Your task to perform on an android device: Open the stopwatch Image 0: 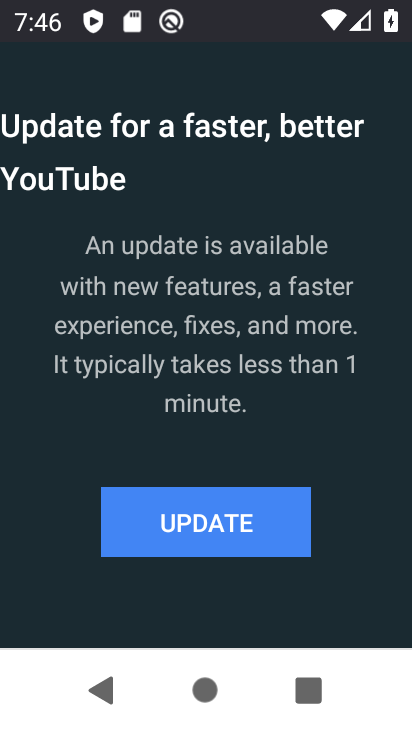
Step 0: press home button
Your task to perform on an android device: Open the stopwatch Image 1: 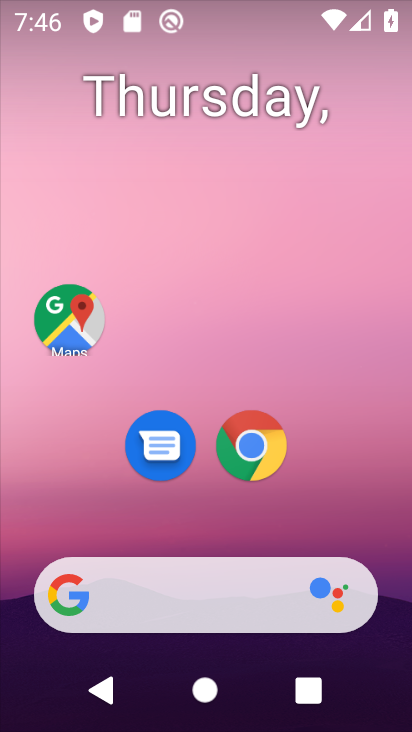
Step 1: drag from (336, 529) to (356, 16)
Your task to perform on an android device: Open the stopwatch Image 2: 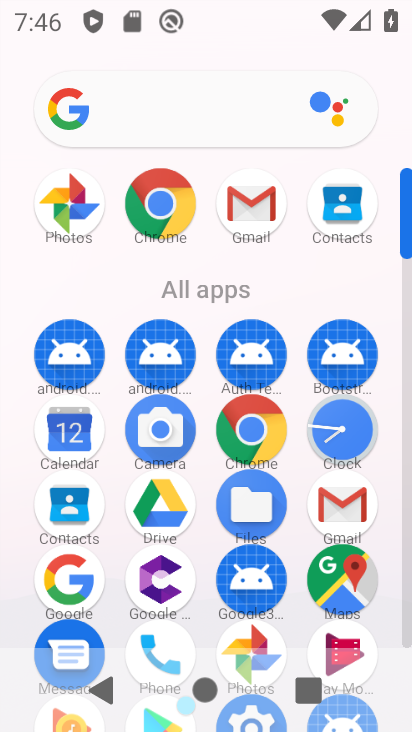
Step 2: click (335, 427)
Your task to perform on an android device: Open the stopwatch Image 3: 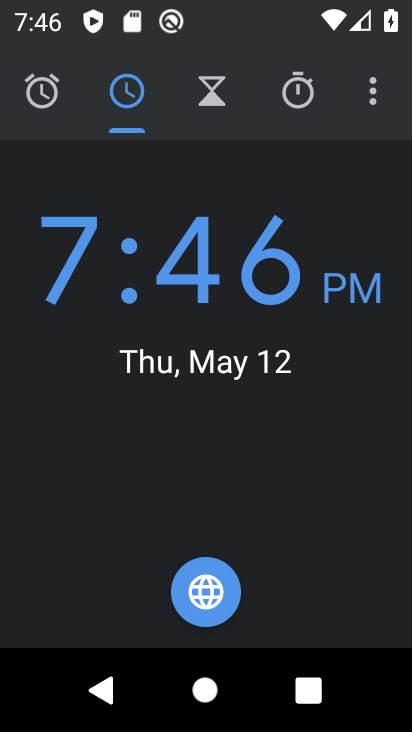
Step 3: click (306, 102)
Your task to perform on an android device: Open the stopwatch Image 4: 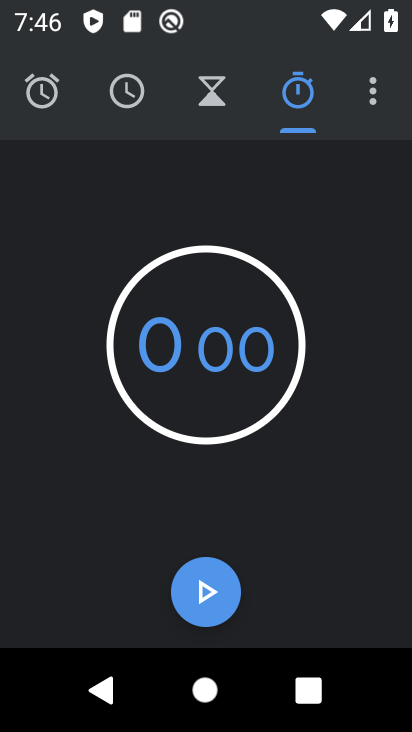
Step 4: task complete